Your task to perform on an android device: toggle airplane mode Image 0: 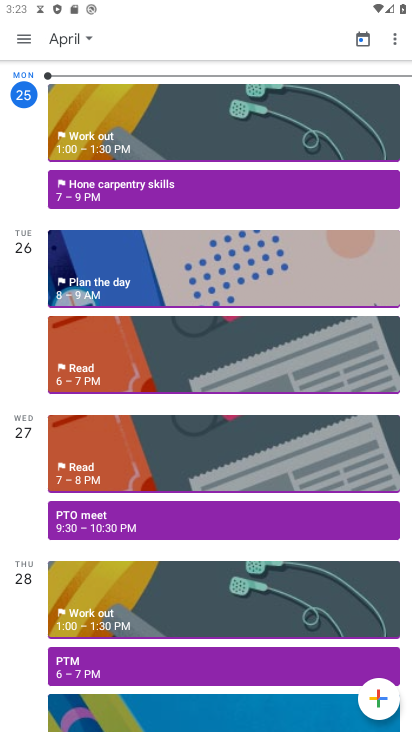
Step 0: press home button
Your task to perform on an android device: toggle airplane mode Image 1: 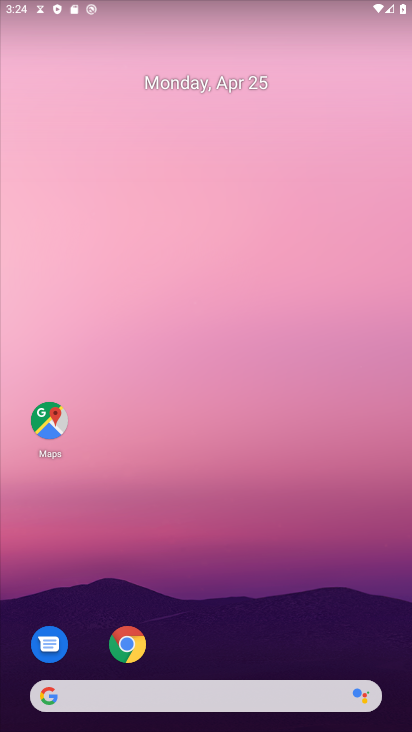
Step 1: drag from (288, 58) to (244, 561)
Your task to perform on an android device: toggle airplane mode Image 2: 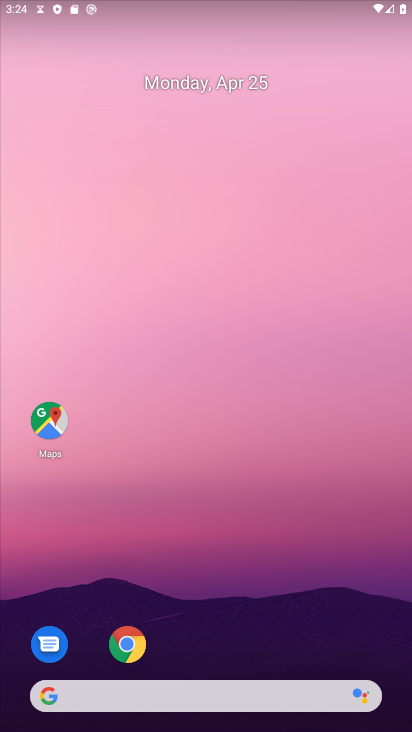
Step 2: drag from (236, 4) to (203, 608)
Your task to perform on an android device: toggle airplane mode Image 3: 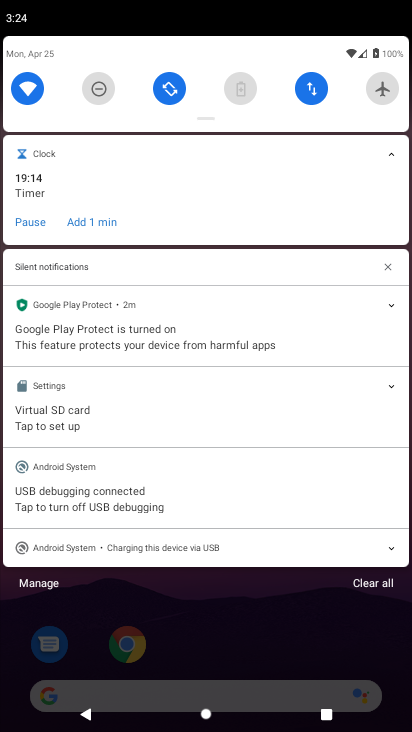
Step 3: click (381, 87)
Your task to perform on an android device: toggle airplane mode Image 4: 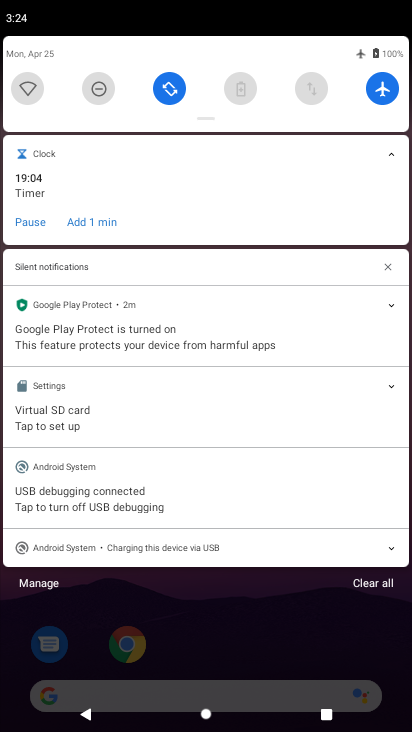
Step 4: task complete